Your task to perform on an android device: turn off picture-in-picture Image 0: 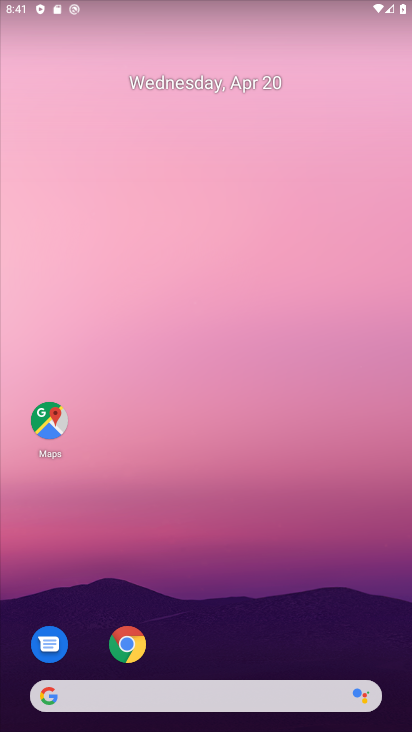
Step 0: drag from (320, 637) to (266, 89)
Your task to perform on an android device: turn off picture-in-picture Image 1: 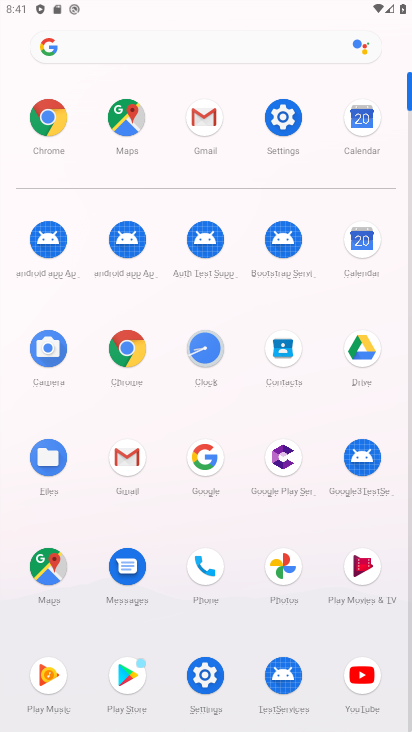
Step 1: click (38, 122)
Your task to perform on an android device: turn off picture-in-picture Image 2: 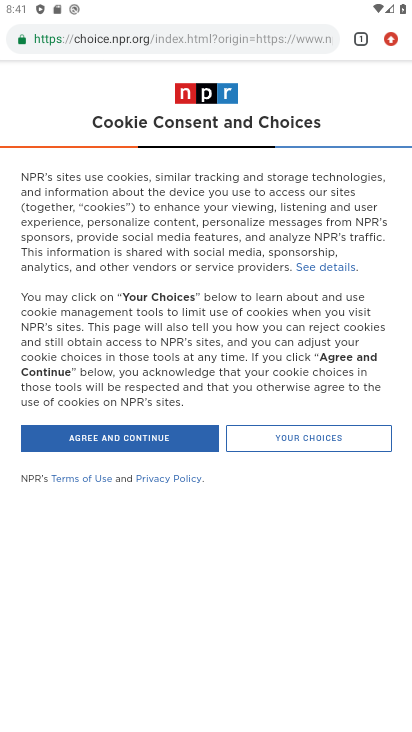
Step 2: task complete